Your task to perform on an android device: change the upload size in google photos Image 0: 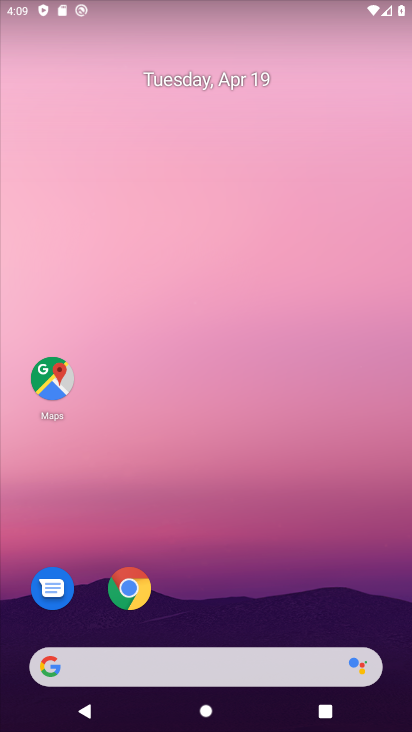
Step 0: drag from (212, 725) to (194, 231)
Your task to perform on an android device: change the upload size in google photos Image 1: 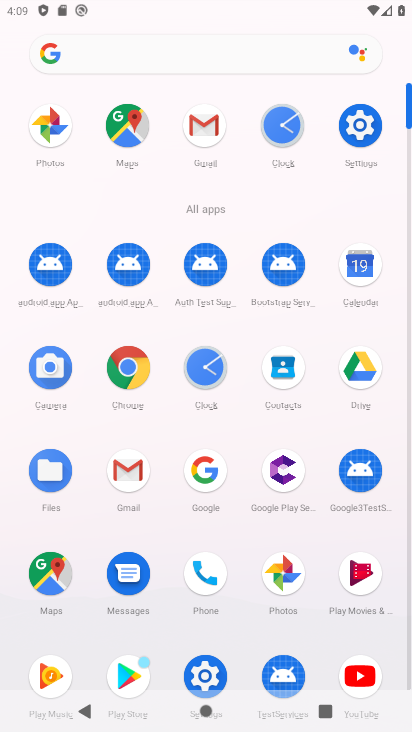
Step 1: click (48, 119)
Your task to perform on an android device: change the upload size in google photos Image 2: 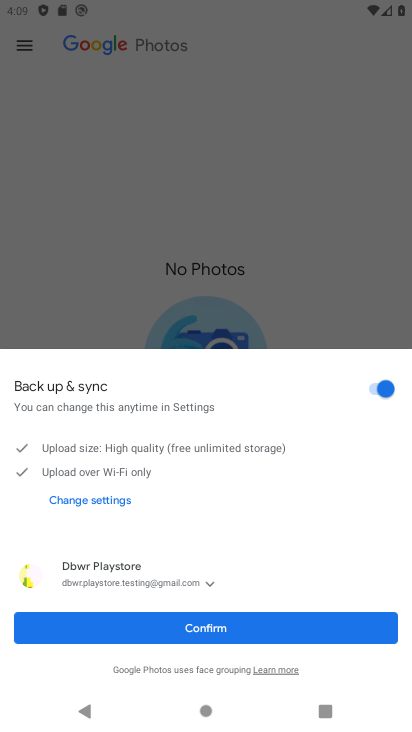
Step 2: click (222, 630)
Your task to perform on an android device: change the upload size in google photos Image 3: 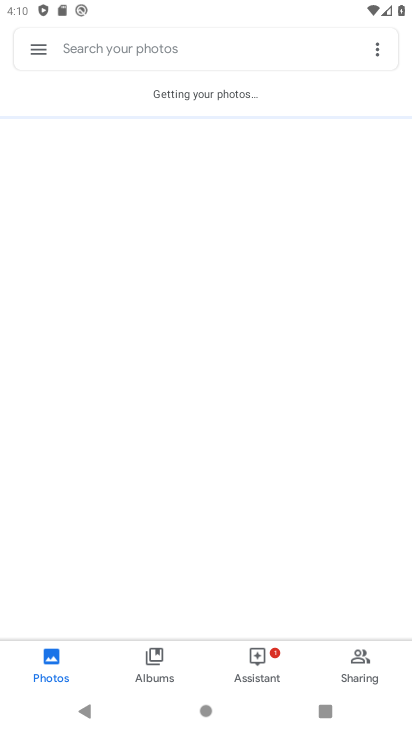
Step 3: click (34, 45)
Your task to perform on an android device: change the upload size in google photos Image 4: 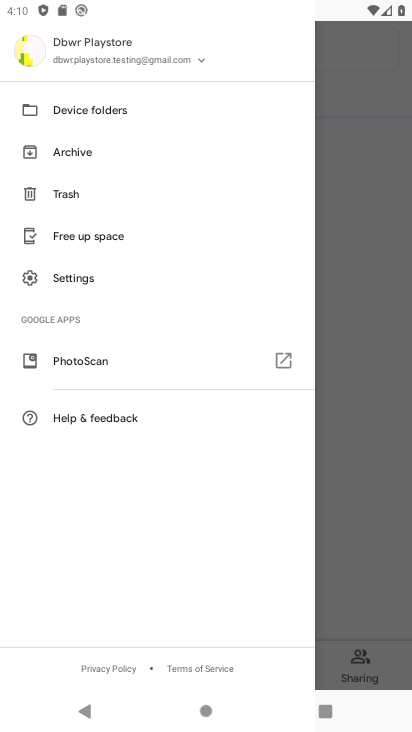
Step 4: click (71, 279)
Your task to perform on an android device: change the upload size in google photos Image 5: 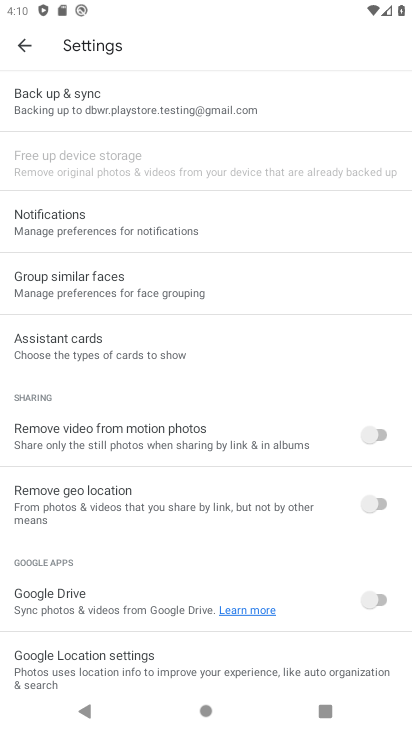
Step 5: click (88, 105)
Your task to perform on an android device: change the upload size in google photos Image 6: 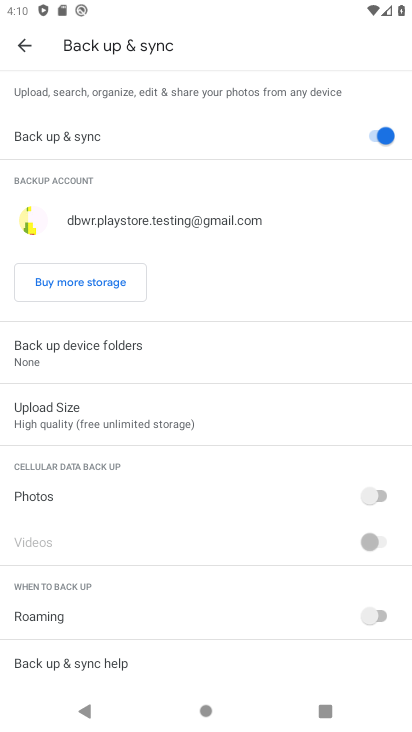
Step 6: click (93, 420)
Your task to perform on an android device: change the upload size in google photos Image 7: 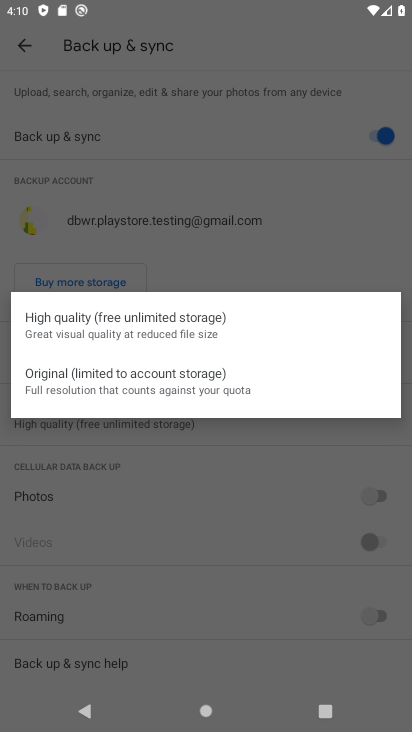
Step 7: click (92, 392)
Your task to perform on an android device: change the upload size in google photos Image 8: 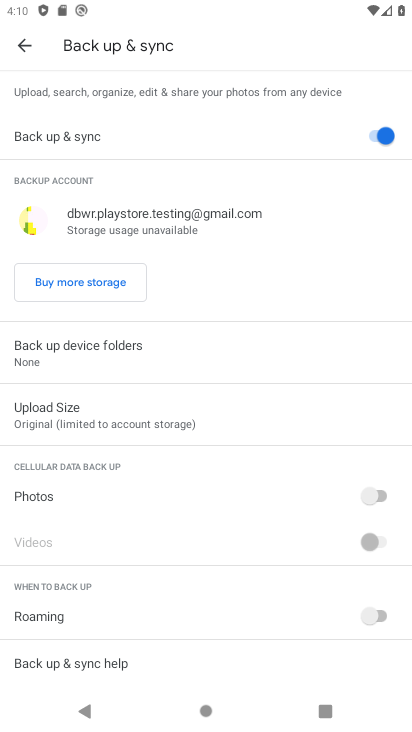
Step 8: task complete